Your task to perform on an android device: turn on data saver in the chrome app Image 0: 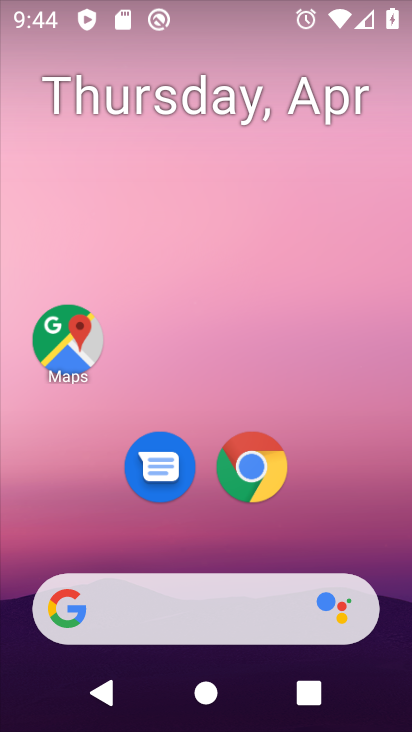
Step 0: click (261, 470)
Your task to perform on an android device: turn on data saver in the chrome app Image 1: 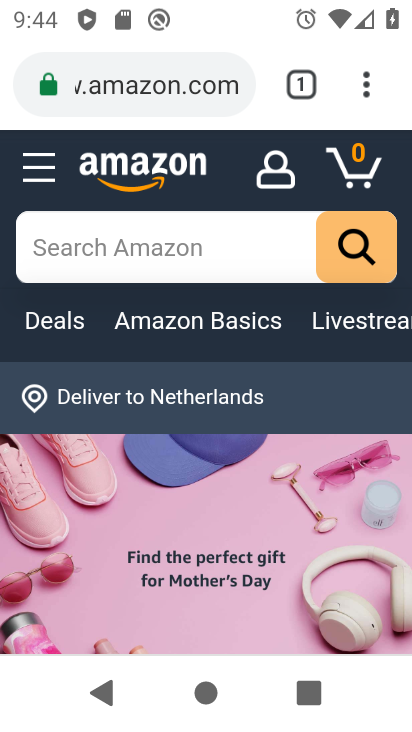
Step 1: drag from (370, 92) to (279, 515)
Your task to perform on an android device: turn on data saver in the chrome app Image 2: 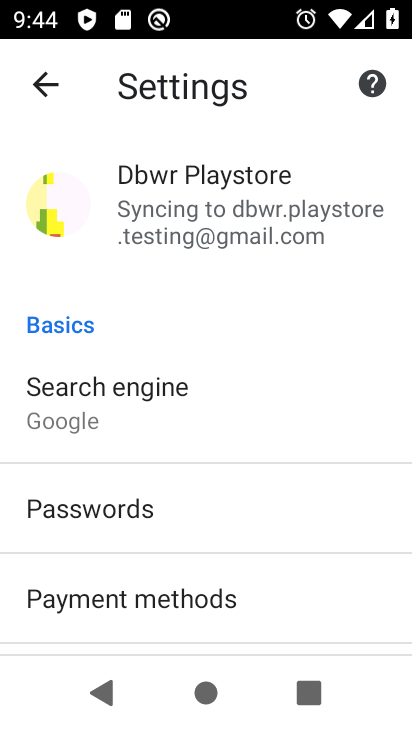
Step 2: drag from (295, 562) to (252, 176)
Your task to perform on an android device: turn on data saver in the chrome app Image 3: 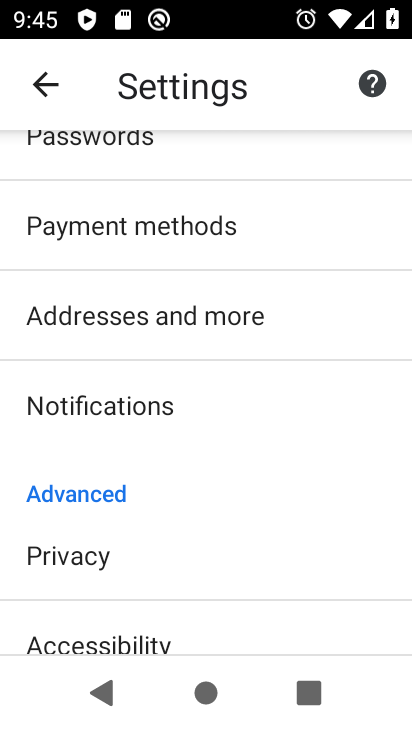
Step 3: drag from (265, 549) to (245, 131)
Your task to perform on an android device: turn on data saver in the chrome app Image 4: 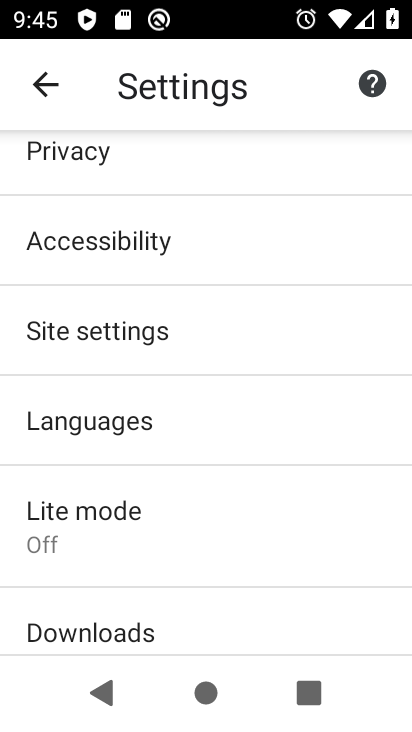
Step 4: click (187, 507)
Your task to perform on an android device: turn on data saver in the chrome app Image 5: 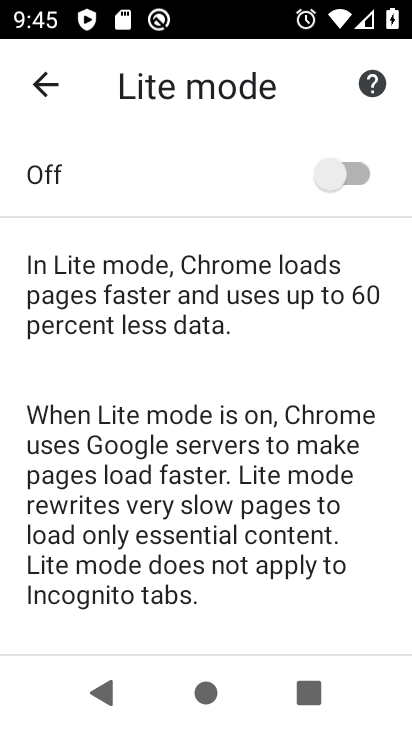
Step 5: click (359, 169)
Your task to perform on an android device: turn on data saver in the chrome app Image 6: 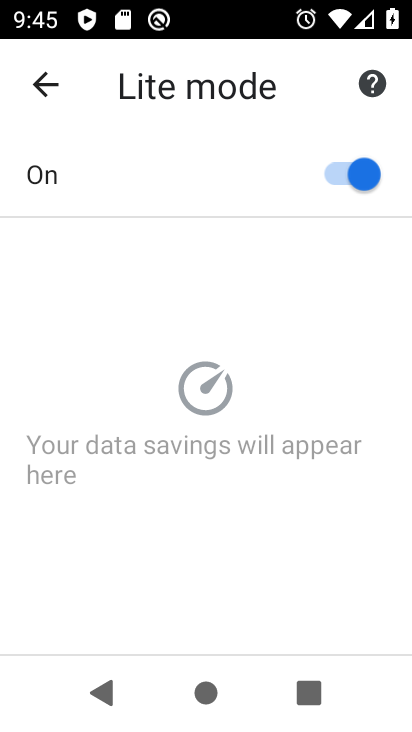
Step 6: task complete